Your task to perform on an android device: turn off picture-in-picture Image 0: 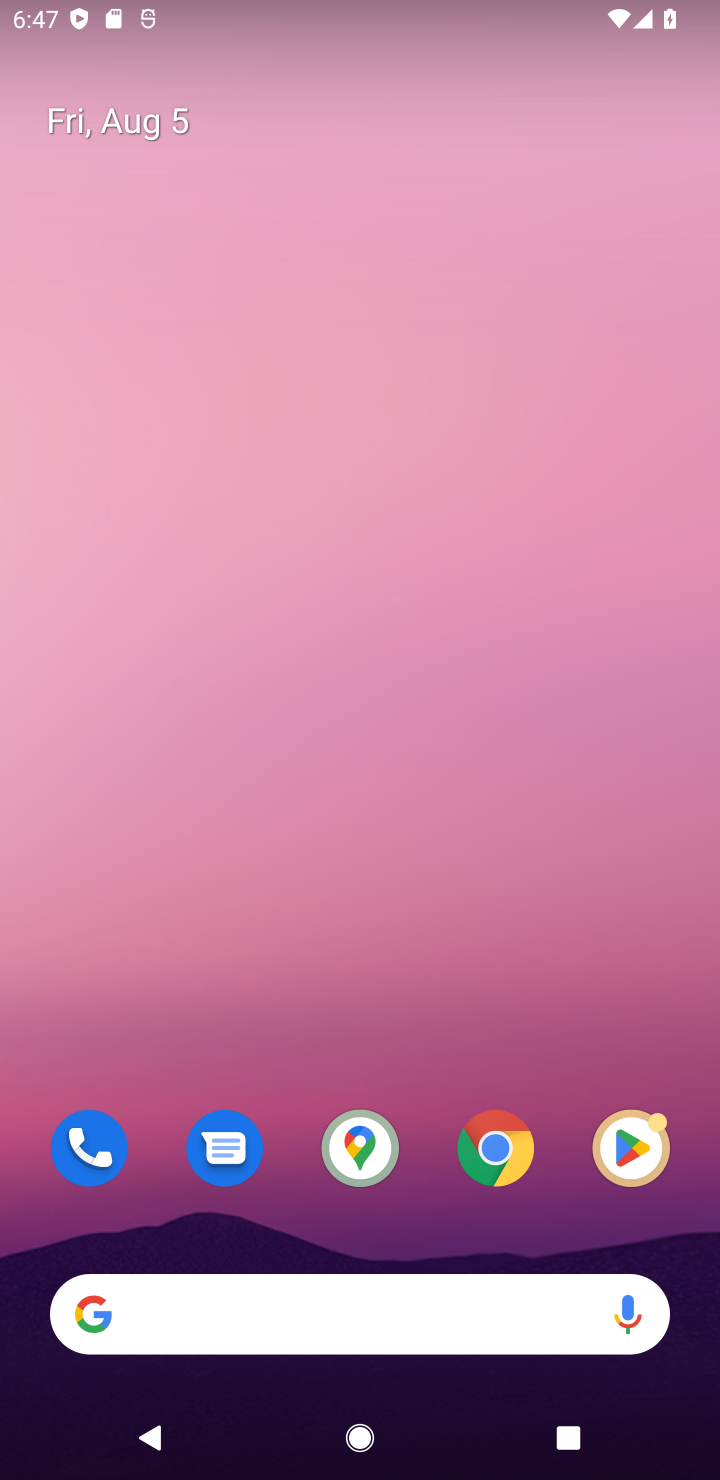
Step 0: drag from (405, 1253) to (452, 21)
Your task to perform on an android device: turn off picture-in-picture Image 1: 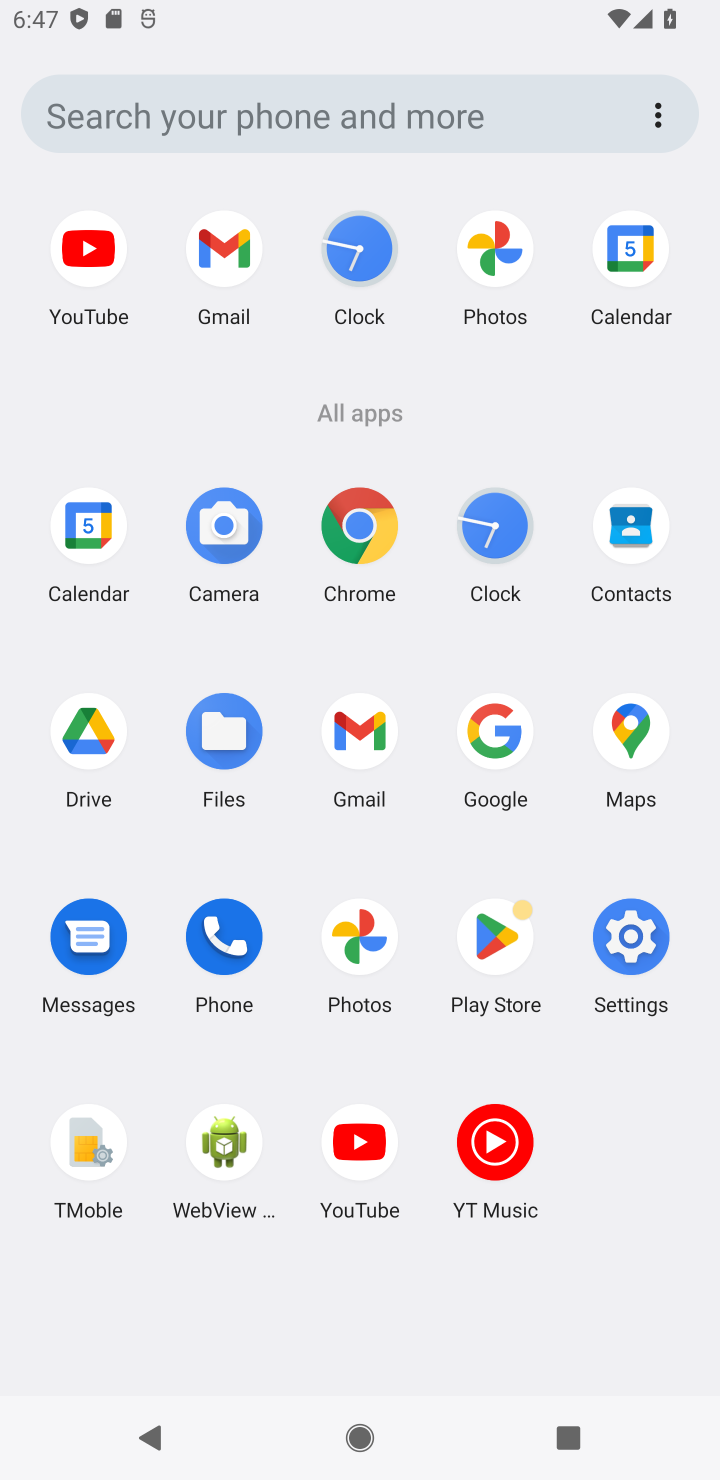
Step 1: click (604, 935)
Your task to perform on an android device: turn off picture-in-picture Image 2: 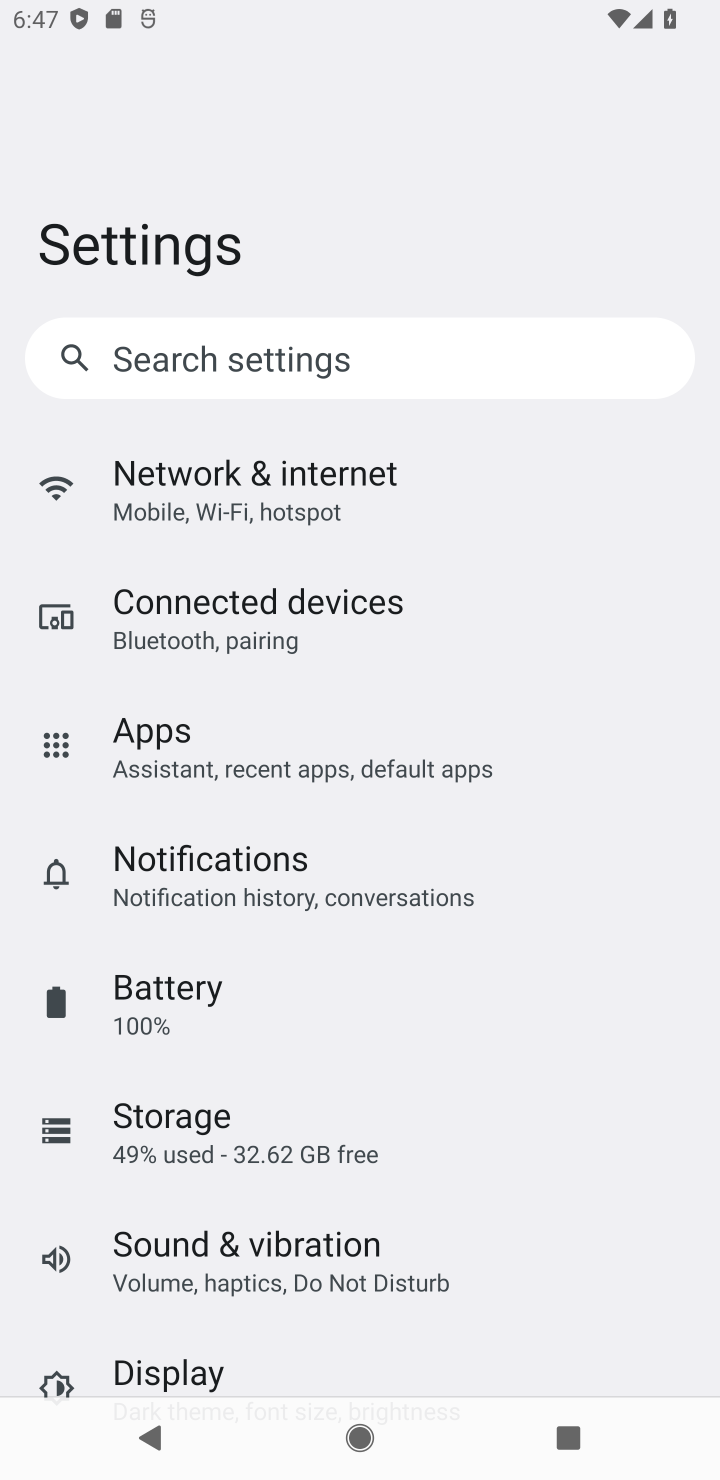
Step 2: click (240, 865)
Your task to perform on an android device: turn off picture-in-picture Image 3: 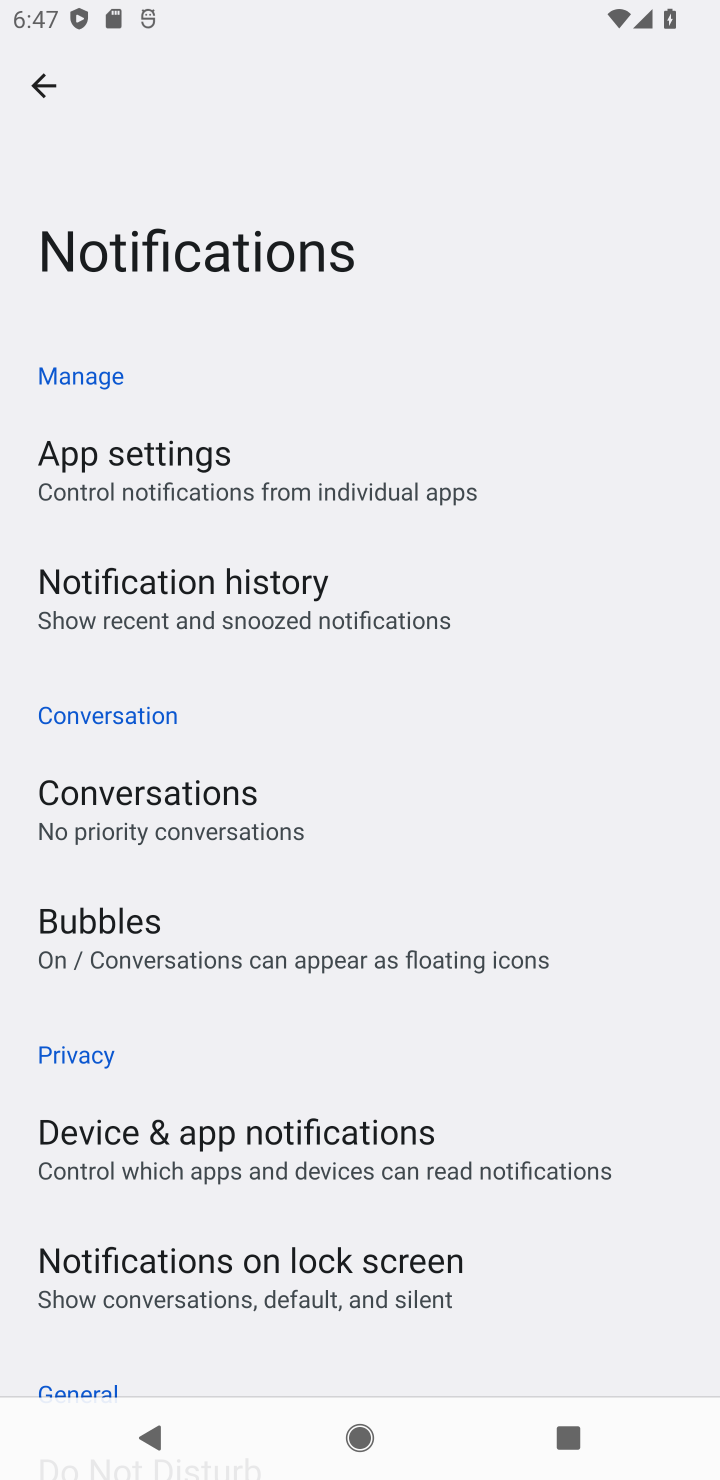
Step 3: task complete